Your task to perform on an android device: Open eBay Image 0: 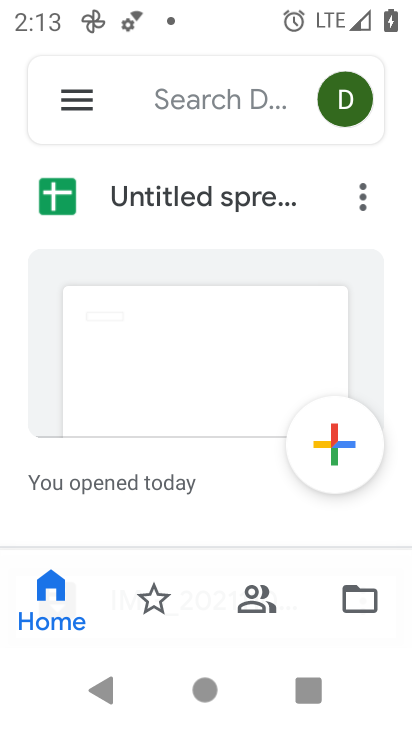
Step 0: press home button
Your task to perform on an android device: Open eBay Image 1: 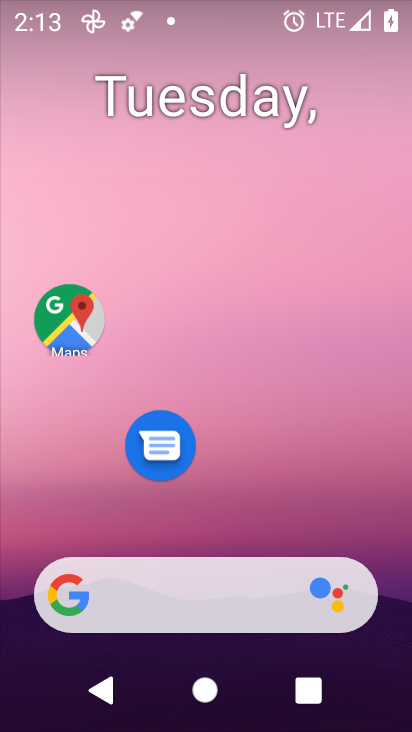
Step 1: drag from (247, 487) to (188, 39)
Your task to perform on an android device: Open eBay Image 2: 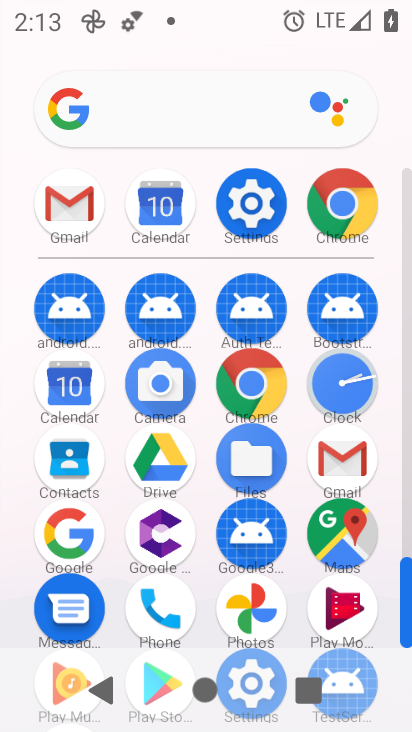
Step 2: click (342, 211)
Your task to perform on an android device: Open eBay Image 3: 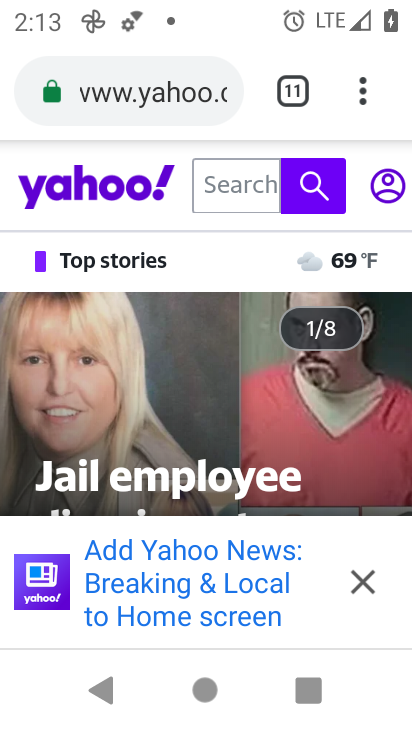
Step 3: click (360, 92)
Your task to perform on an android device: Open eBay Image 4: 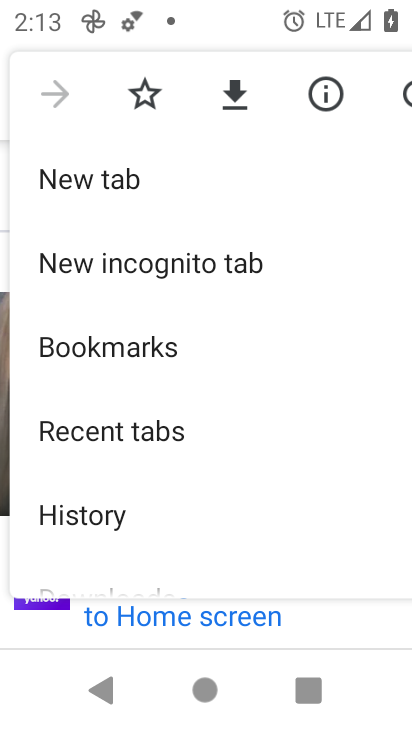
Step 4: click (109, 175)
Your task to perform on an android device: Open eBay Image 5: 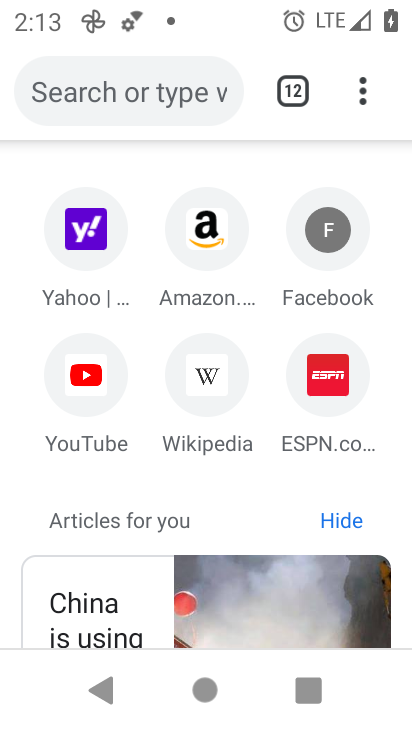
Step 5: click (160, 97)
Your task to perform on an android device: Open eBay Image 6: 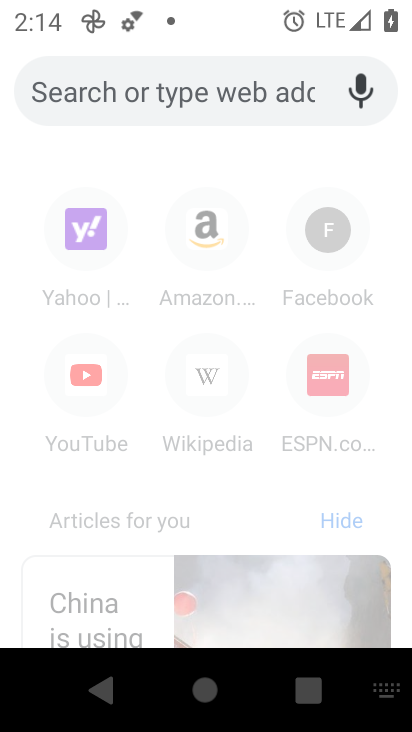
Step 6: type "ebay"
Your task to perform on an android device: Open eBay Image 7: 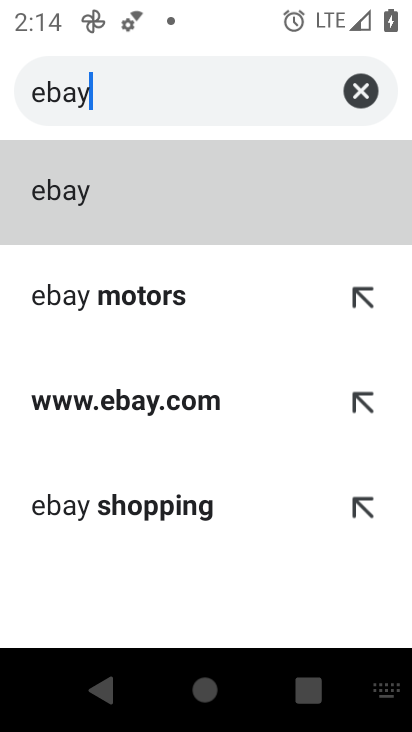
Step 7: click (84, 190)
Your task to perform on an android device: Open eBay Image 8: 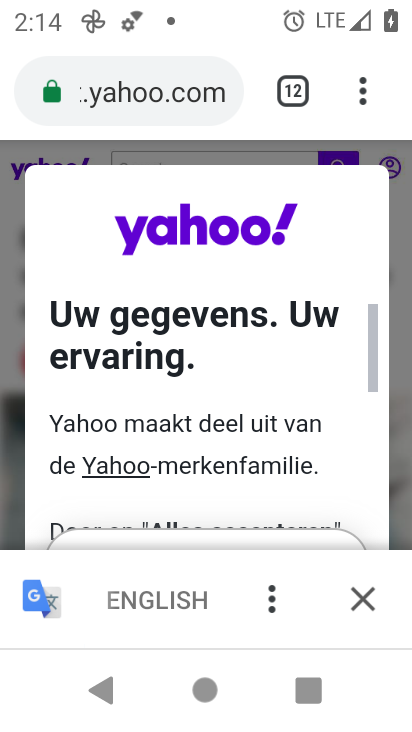
Step 8: task complete